Your task to perform on an android device: toggle notification dots Image 0: 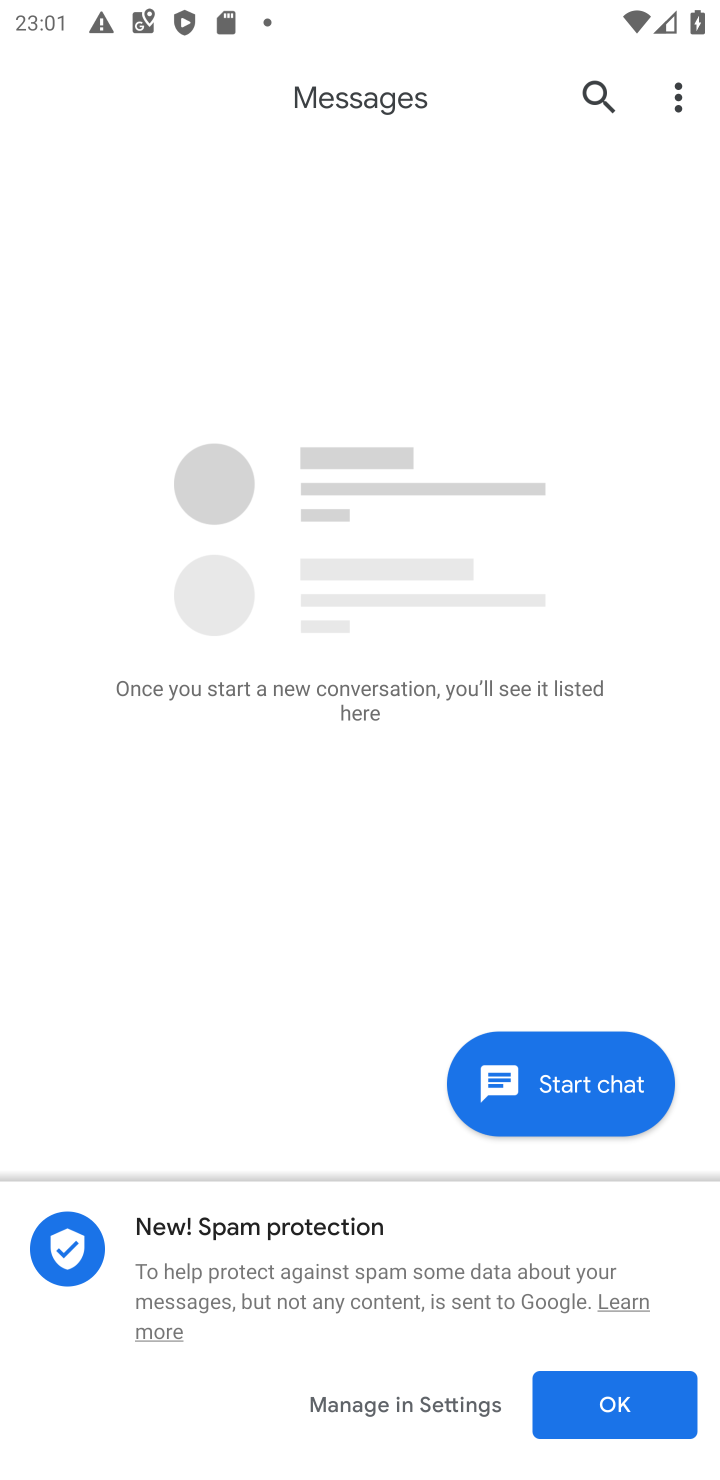
Step 0: press home button
Your task to perform on an android device: toggle notification dots Image 1: 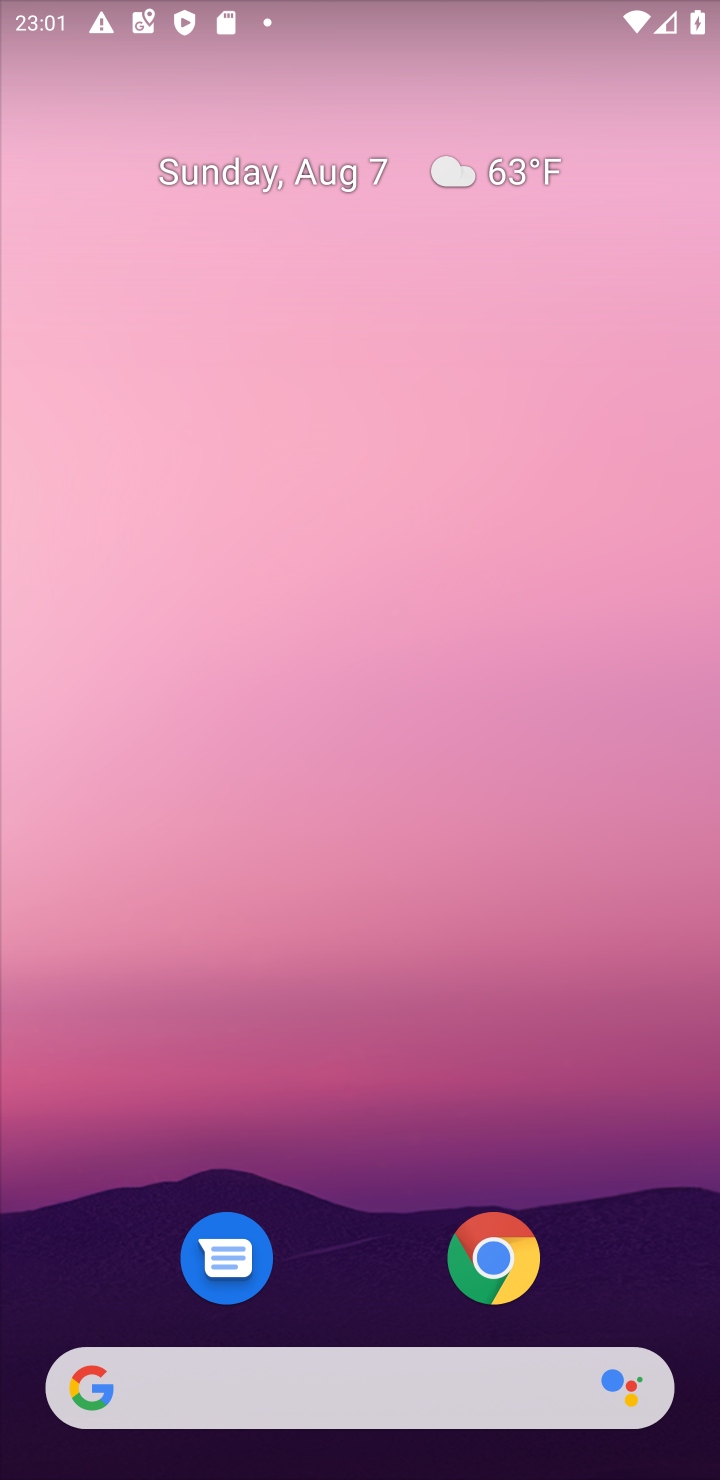
Step 1: drag from (346, 1227) to (608, 30)
Your task to perform on an android device: toggle notification dots Image 2: 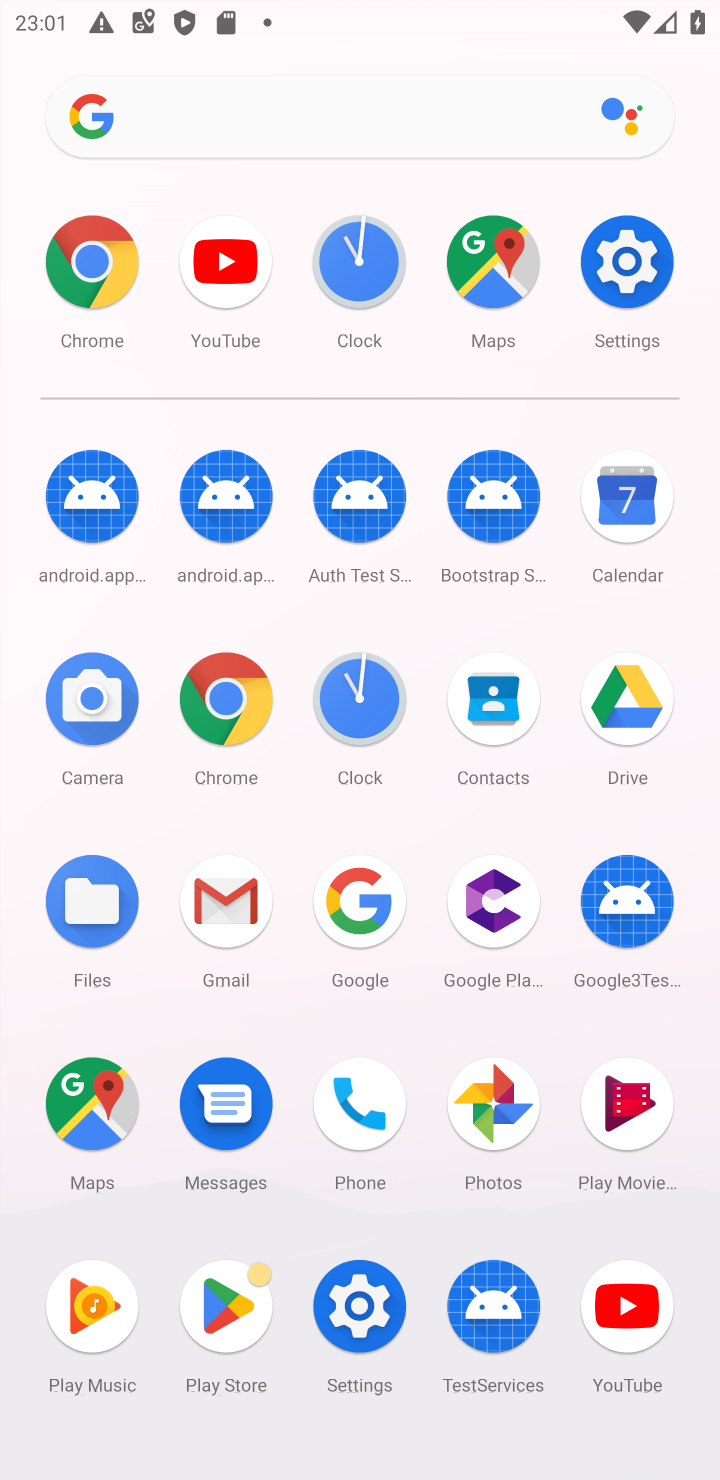
Step 2: click (628, 243)
Your task to perform on an android device: toggle notification dots Image 3: 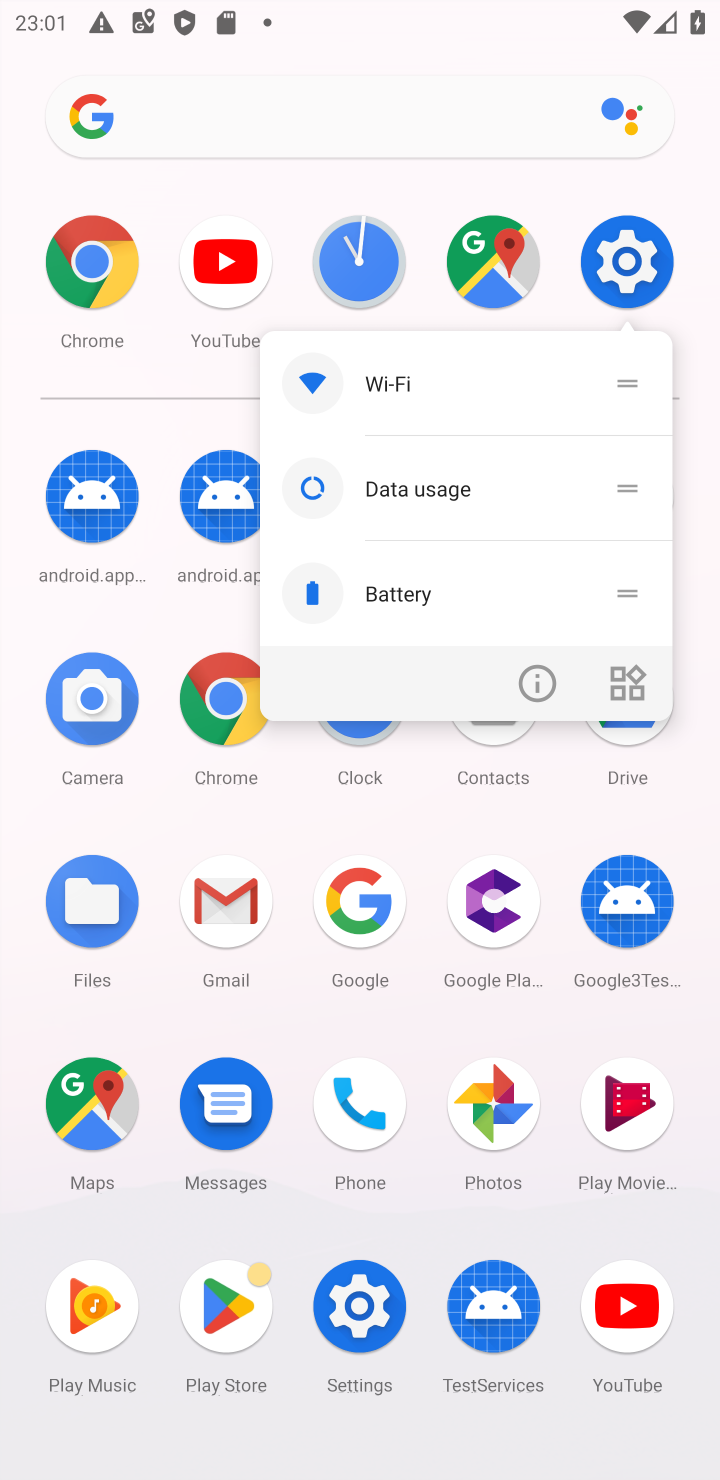
Step 3: click (624, 279)
Your task to perform on an android device: toggle notification dots Image 4: 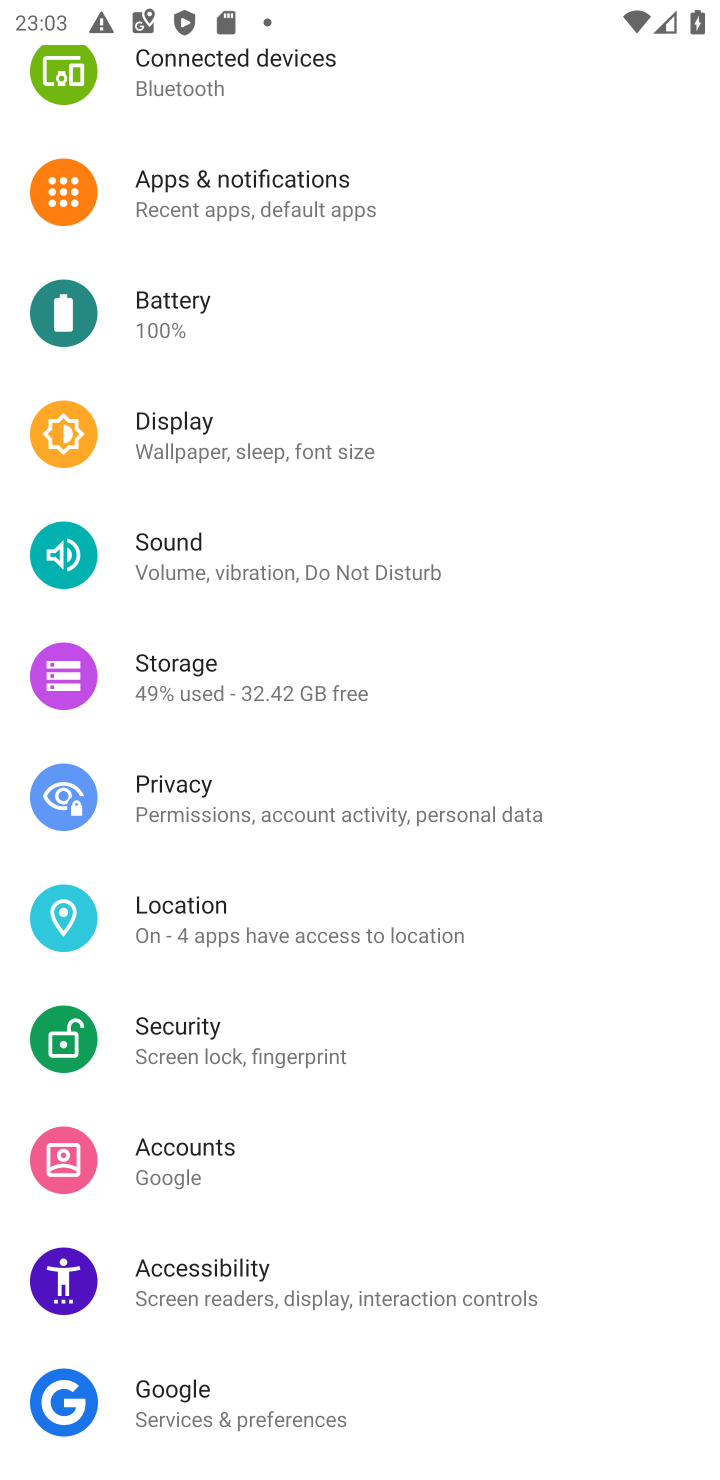
Step 4: click (279, 204)
Your task to perform on an android device: toggle notification dots Image 5: 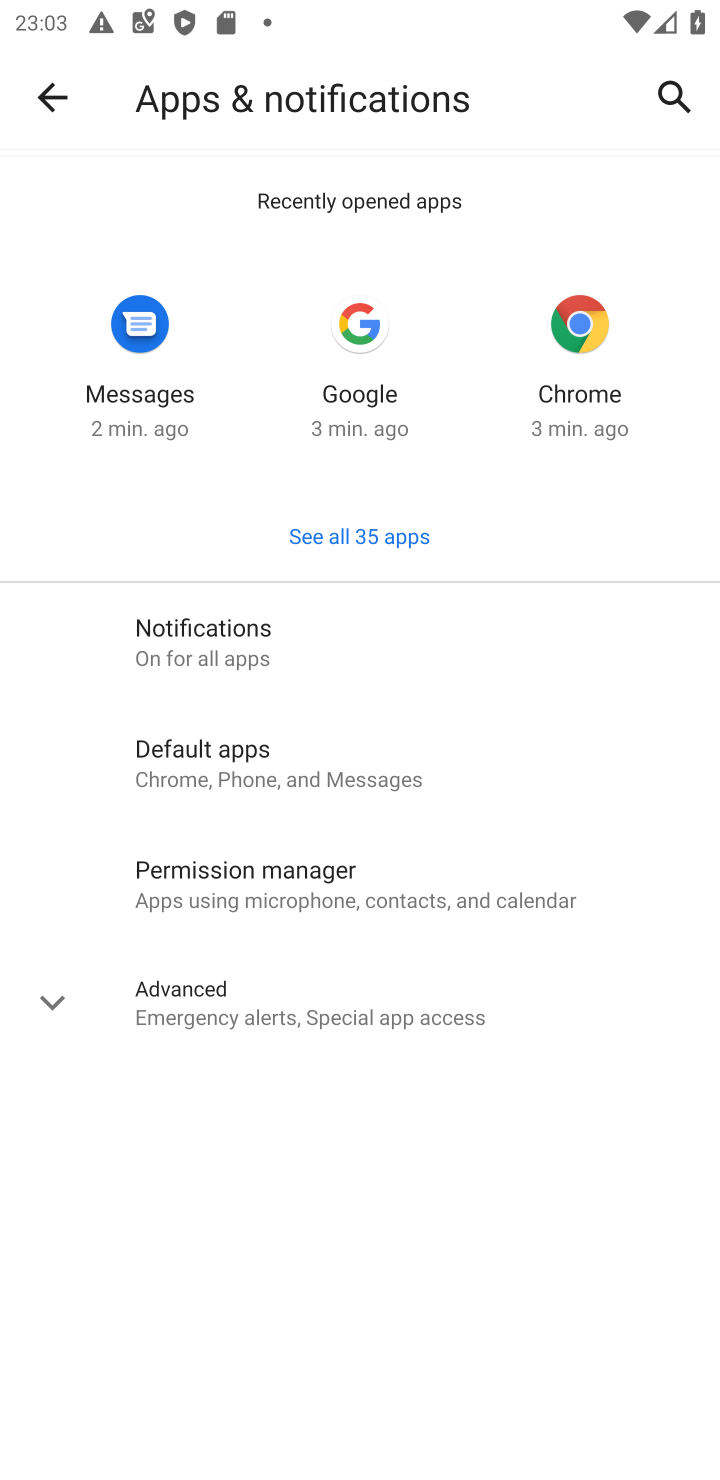
Step 5: click (226, 622)
Your task to perform on an android device: toggle notification dots Image 6: 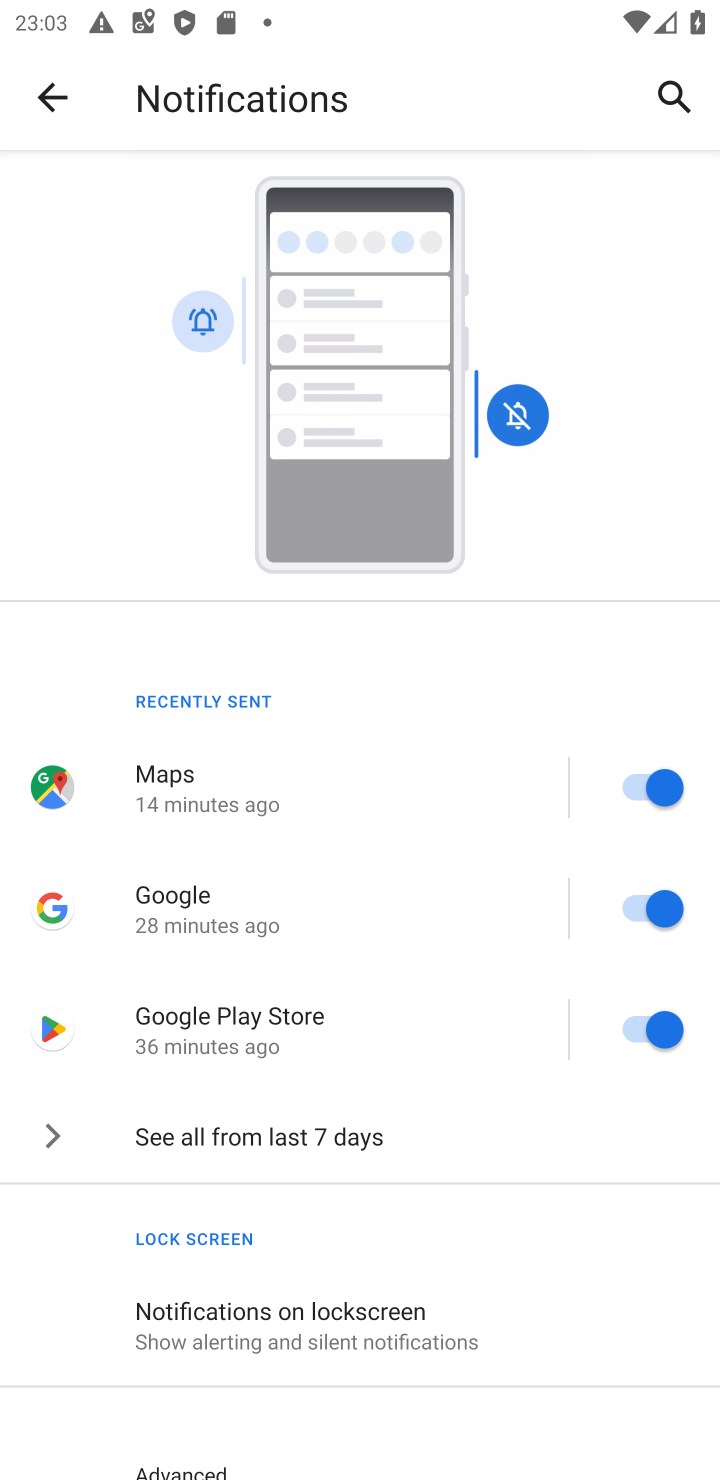
Step 6: drag from (509, 1082) to (535, 59)
Your task to perform on an android device: toggle notification dots Image 7: 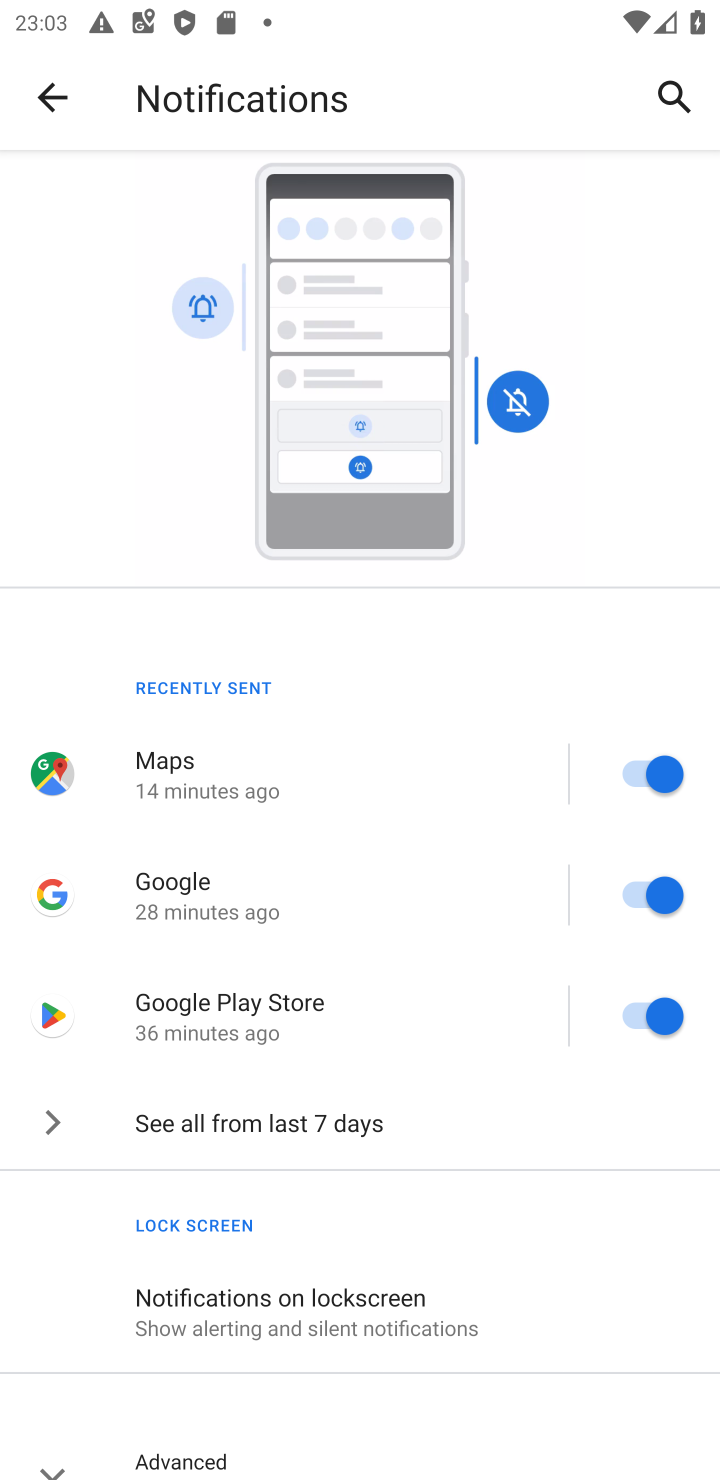
Step 7: click (381, 461)
Your task to perform on an android device: toggle notification dots Image 8: 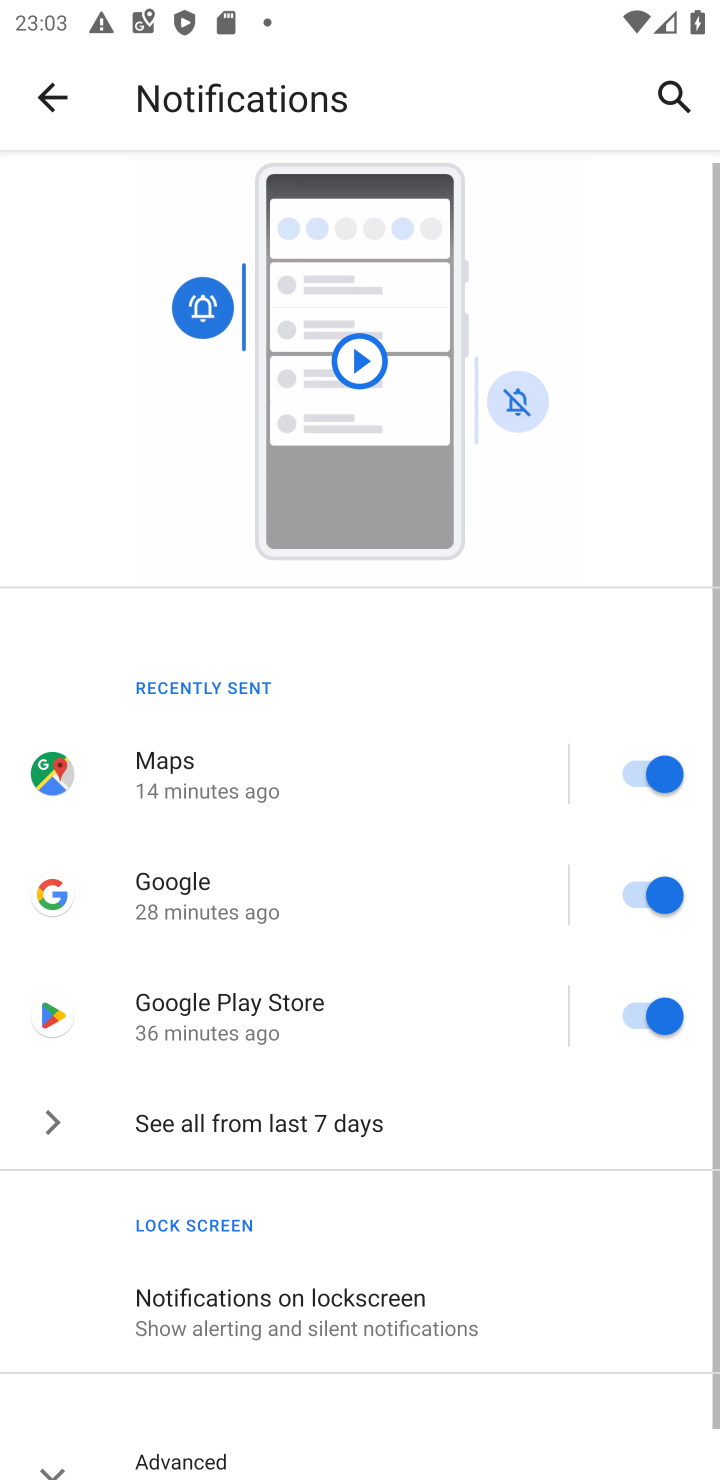
Step 8: drag from (486, 1329) to (422, 289)
Your task to perform on an android device: toggle notification dots Image 9: 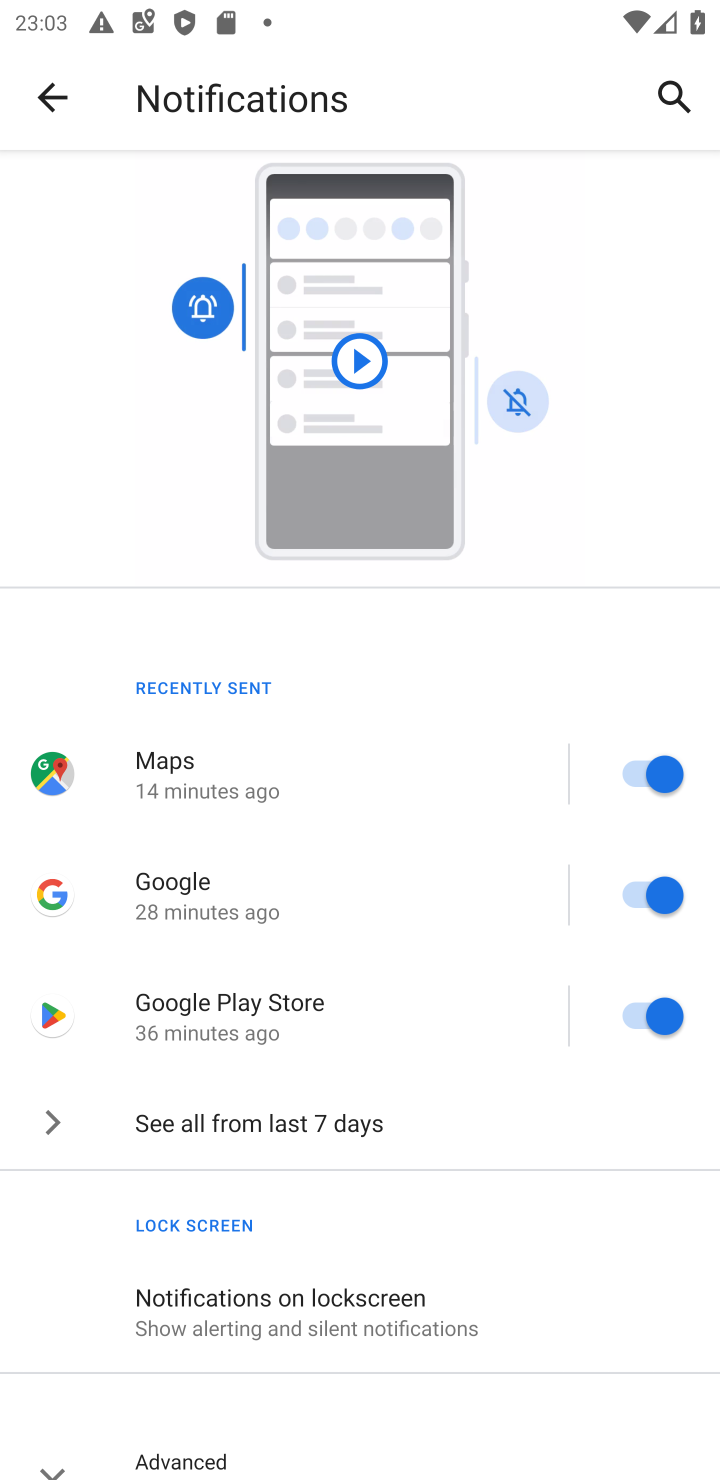
Step 9: drag from (533, 1319) to (410, 34)
Your task to perform on an android device: toggle notification dots Image 10: 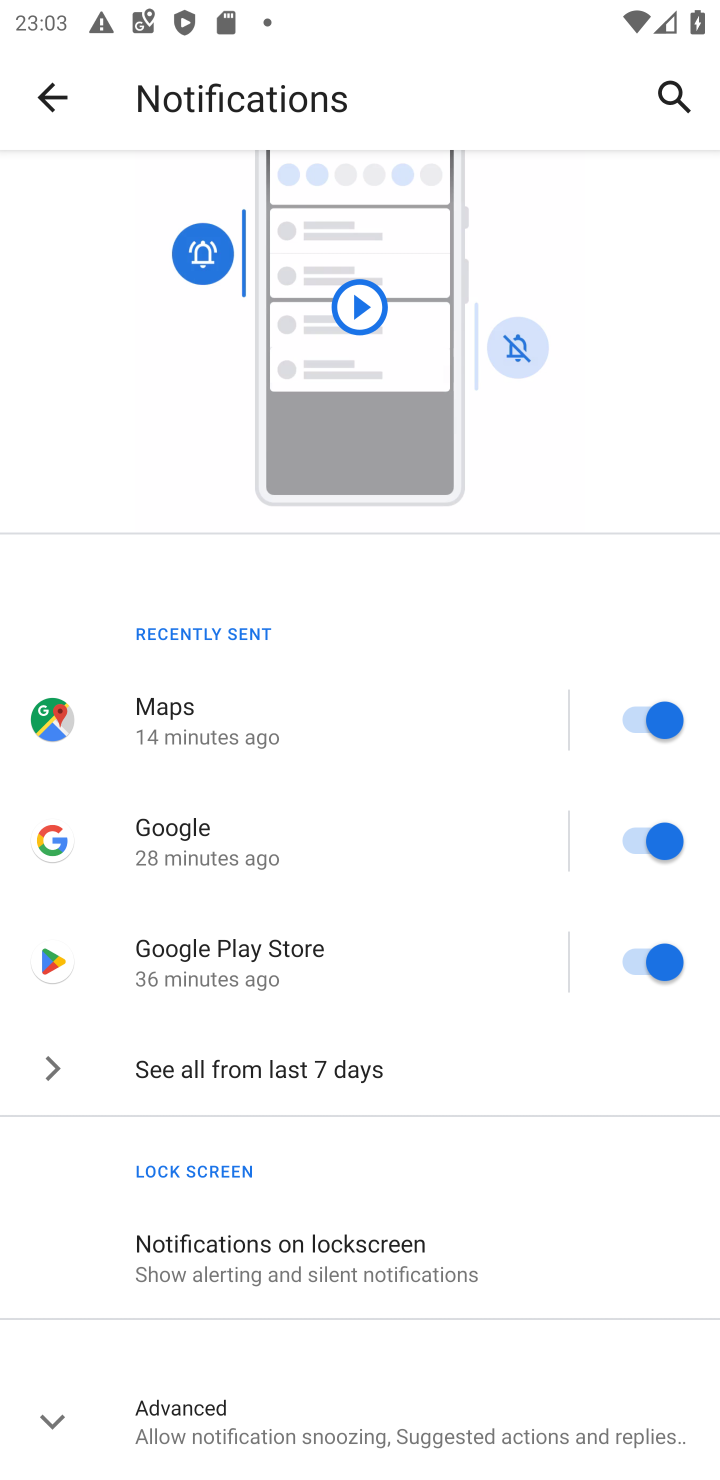
Step 10: click (215, 1447)
Your task to perform on an android device: toggle notification dots Image 11: 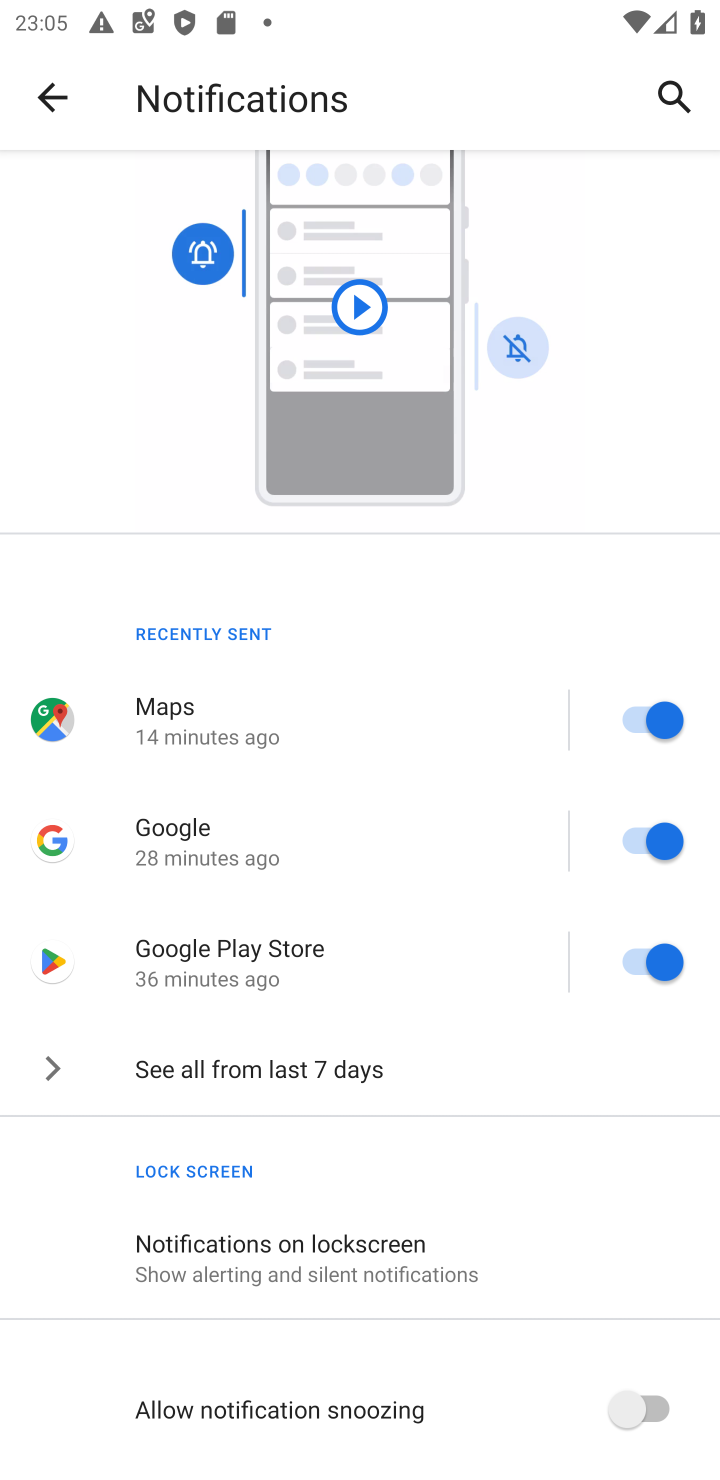
Step 11: drag from (356, 1295) to (308, 497)
Your task to perform on an android device: toggle notification dots Image 12: 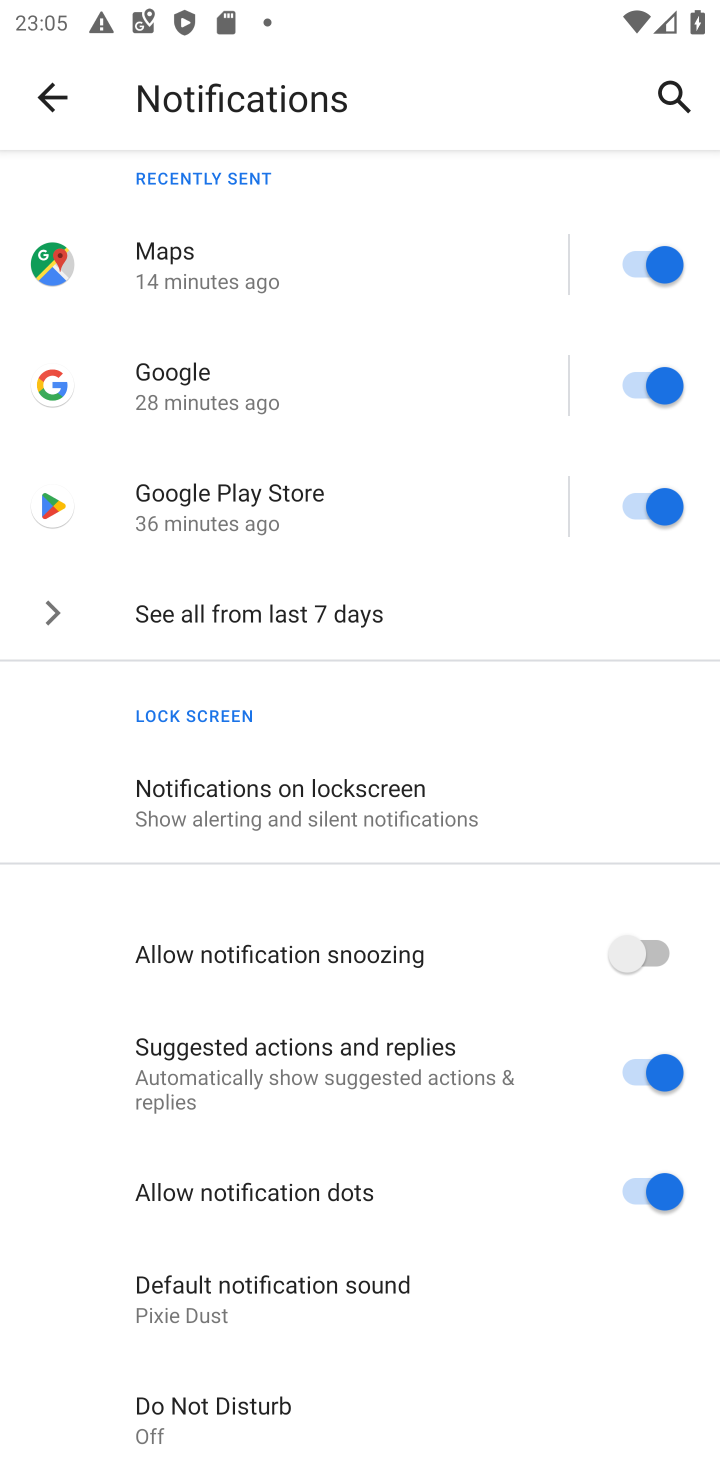
Step 12: click (619, 1188)
Your task to perform on an android device: toggle notification dots Image 13: 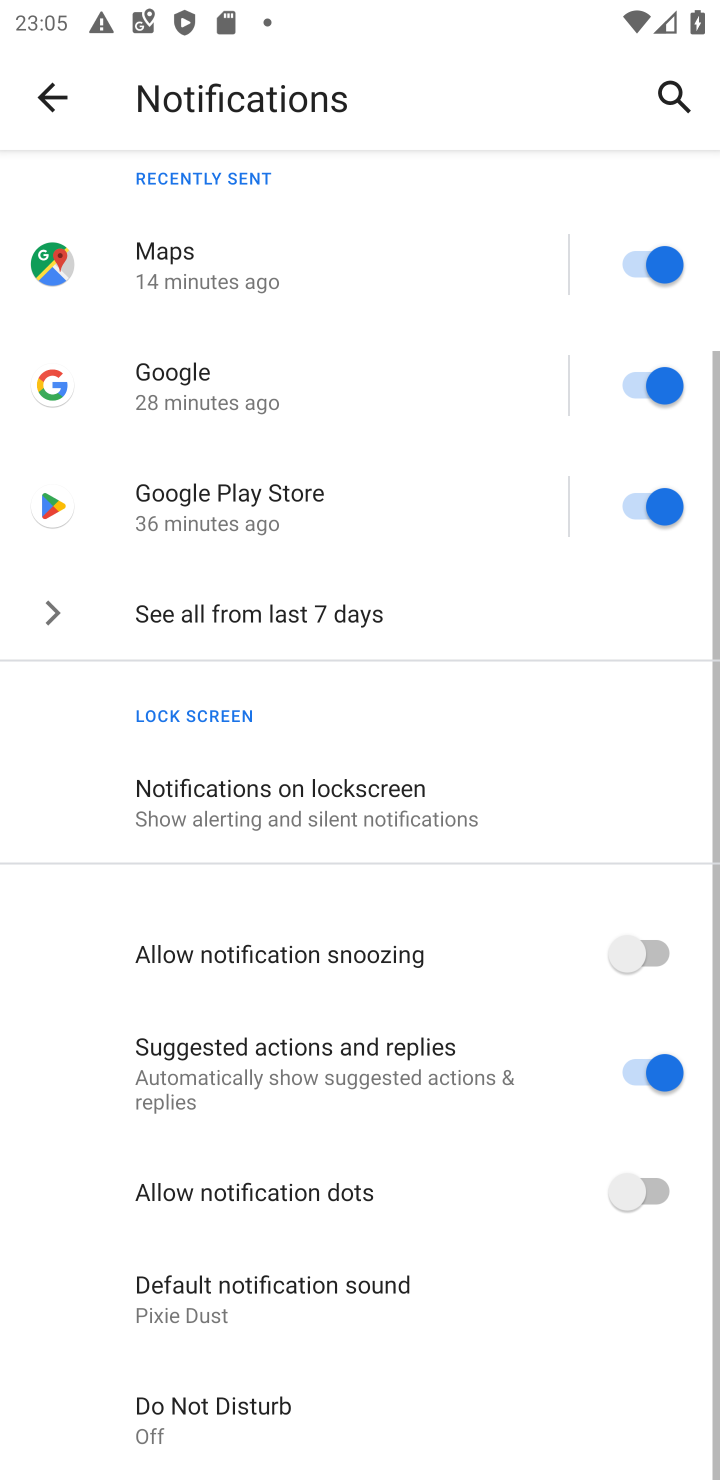
Step 13: task complete